Your task to perform on an android device: Open network settings Image 0: 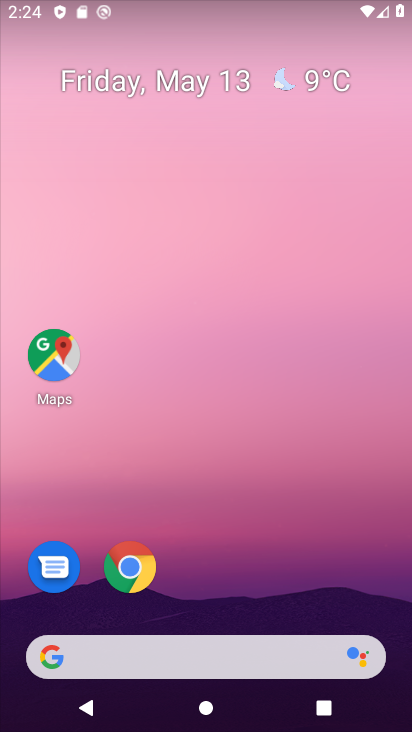
Step 0: drag from (334, 624) to (324, 71)
Your task to perform on an android device: Open network settings Image 1: 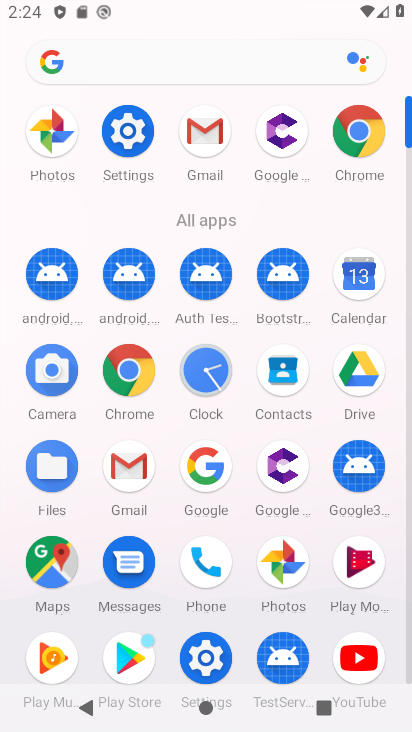
Step 1: click (129, 142)
Your task to perform on an android device: Open network settings Image 2: 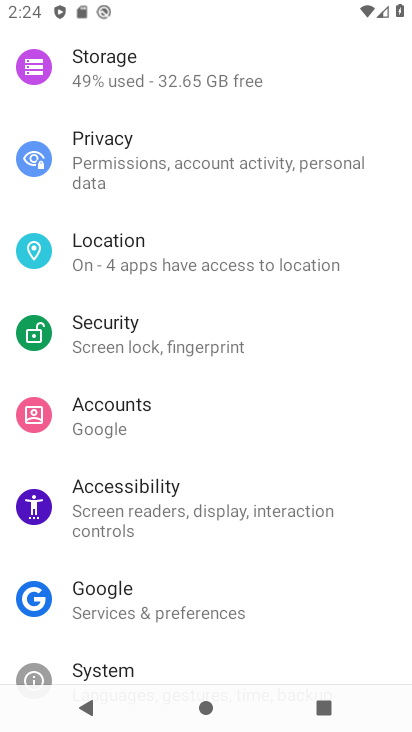
Step 2: drag from (285, 146) to (267, 449)
Your task to perform on an android device: Open network settings Image 3: 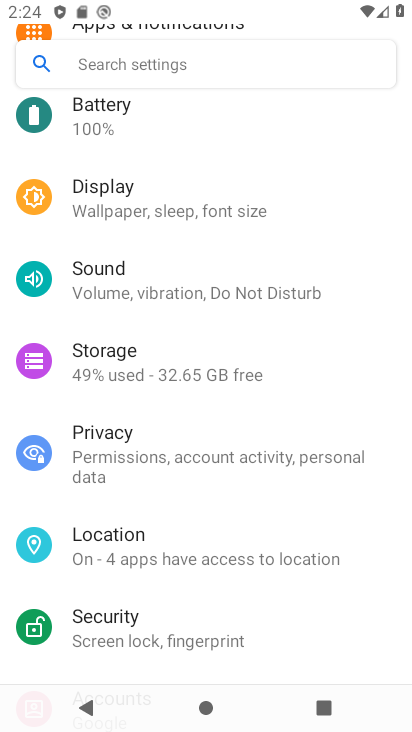
Step 3: drag from (282, 148) to (286, 463)
Your task to perform on an android device: Open network settings Image 4: 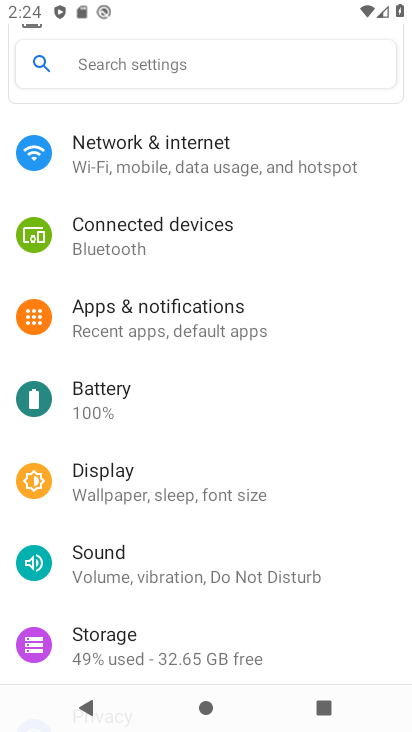
Step 4: click (114, 151)
Your task to perform on an android device: Open network settings Image 5: 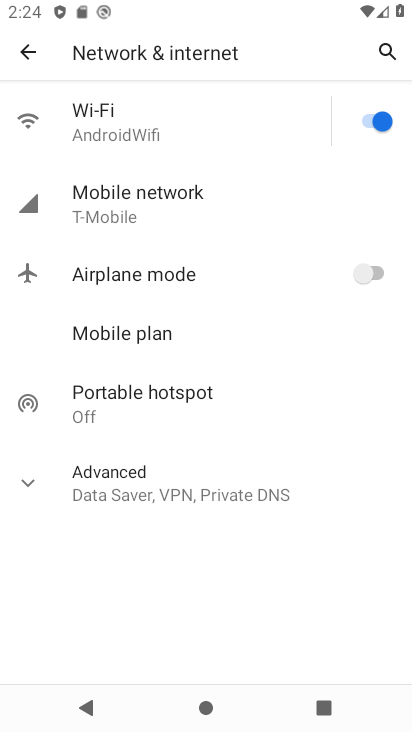
Step 5: click (118, 210)
Your task to perform on an android device: Open network settings Image 6: 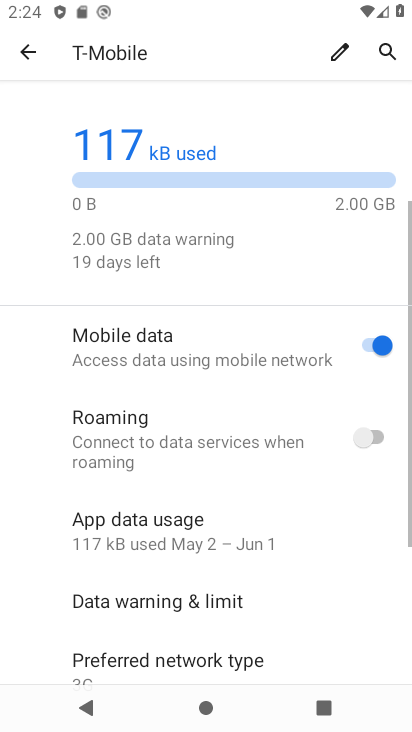
Step 6: drag from (183, 597) to (199, 163)
Your task to perform on an android device: Open network settings Image 7: 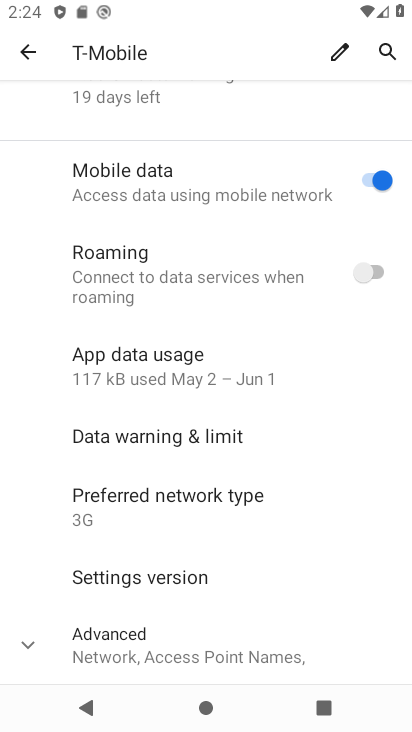
Step 7: click (31, 652)
Your task to perform on an android device: Open network settings Image 8: 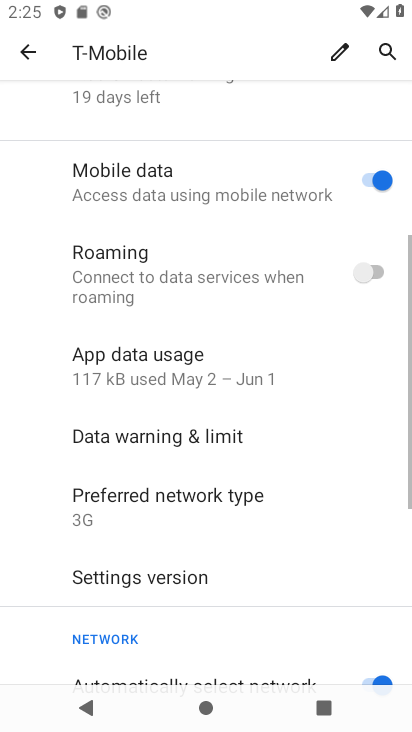
Step 8: task complete